Your task to perform on an android device: change notifications settings Image 0: 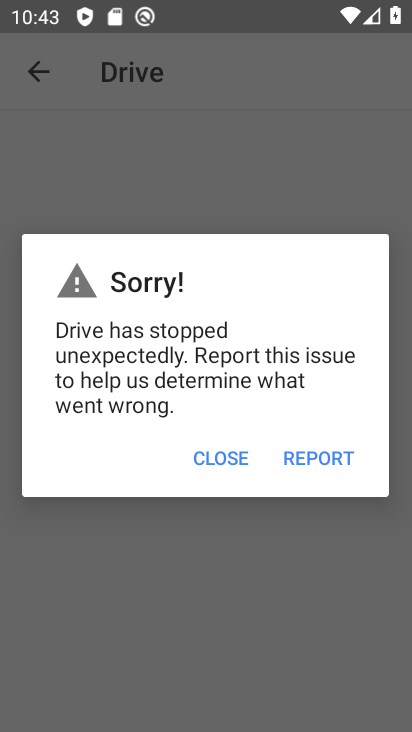
Step 0: click (194, 452)
Your task to perform on an android device: change notifications settings Image 1: 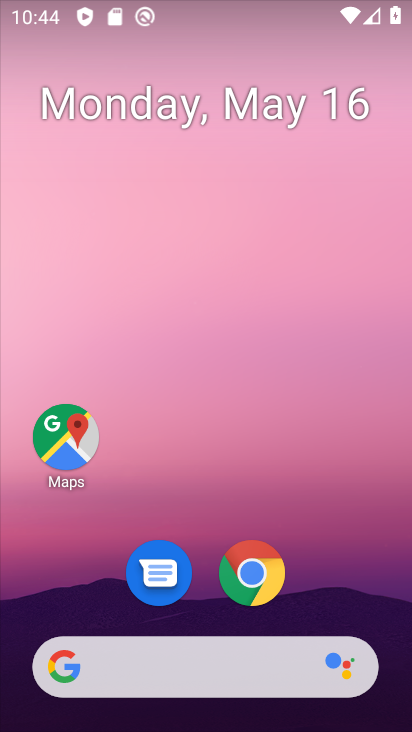
Step 1: drag from (214, 642) to (181, 233)
Your task to perform on an android device: change notifications settings Image 2: 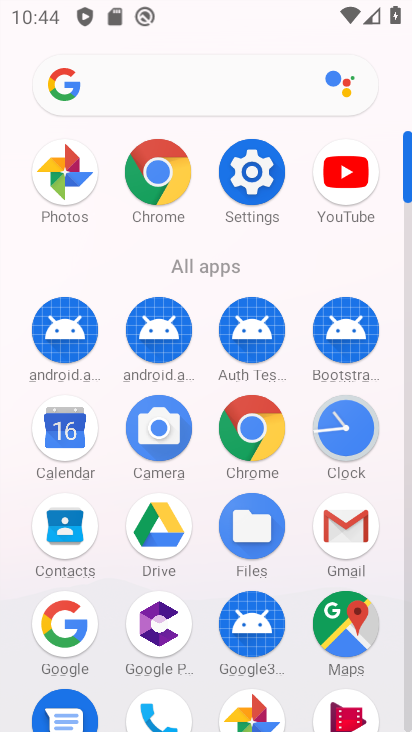
Step 2: click (258, 167)
Your task to perform on an android device: change notifications settings Image 3: 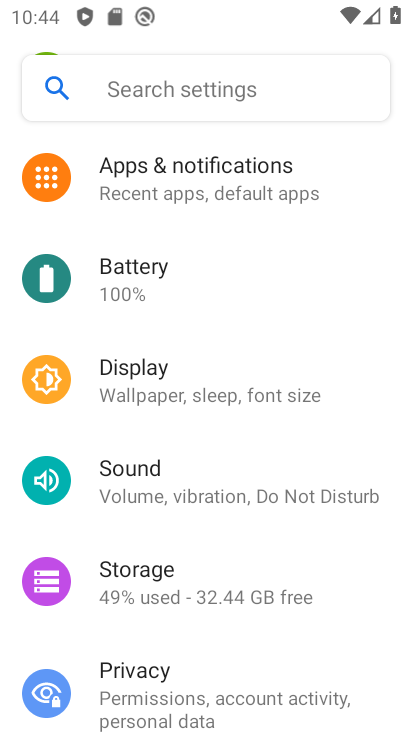
Step 3: click (238, 196)
Your task to perform on an android device: change notifications settings Image 4: 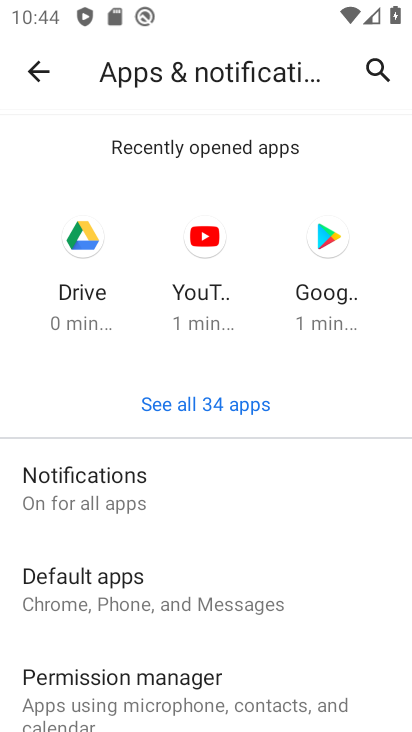
Step 4: task complete